Your task to perform on an android device: toggle javascript in the chrome app Image 0: 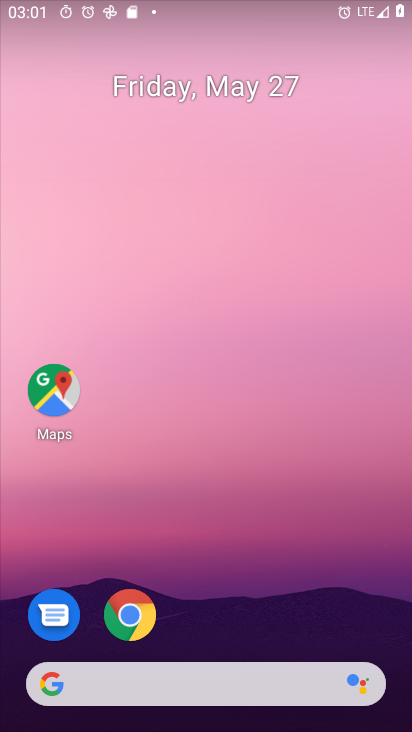
Step 0: drag from (336, 626) to (332, 237)
Your task to perform on an android device: toggle javascript in the chrome app Image 1: 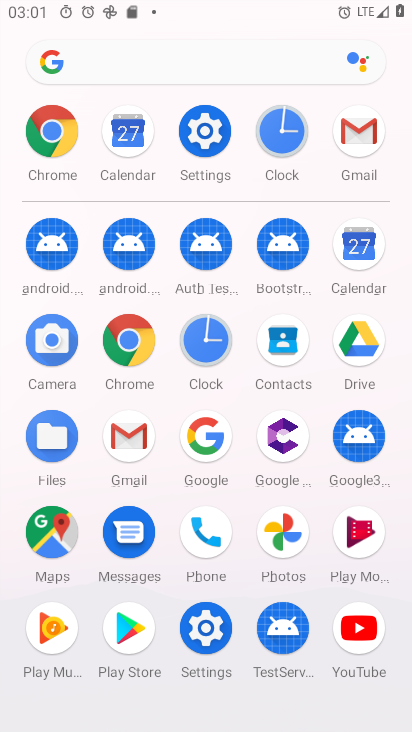
Step 1: click (137, 354)
Your task to perform on an android device: toggle javascript in the chrome app Image 2: 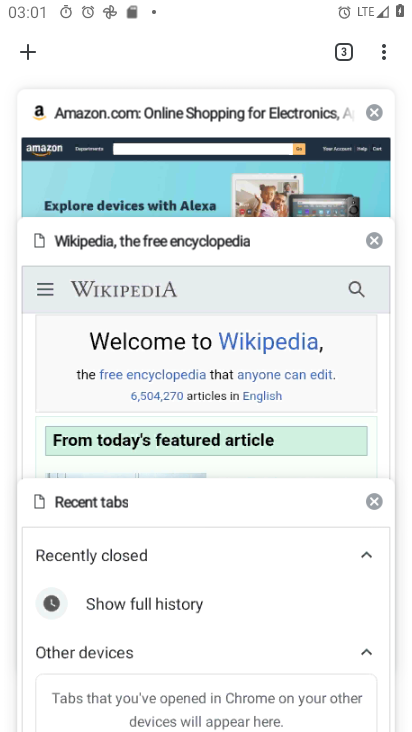
Step 2: click (385, 50)
Your task to perform on an android device: toggle javascript in the chrome app Image 3: 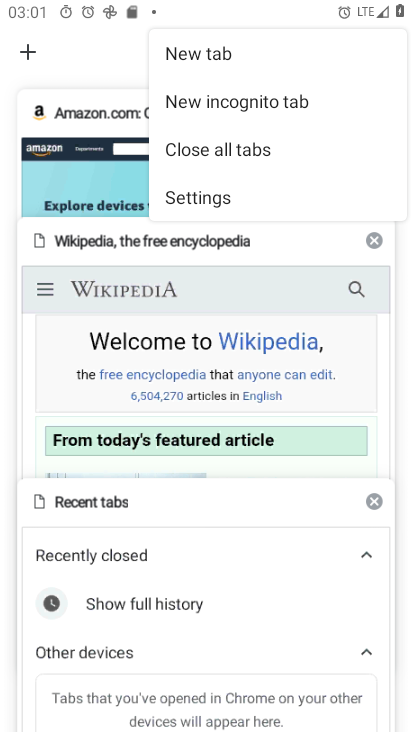
Step 3: click (232, 199)
Your task to perform on an android device: toggle javascript in the chrome app Image 4: 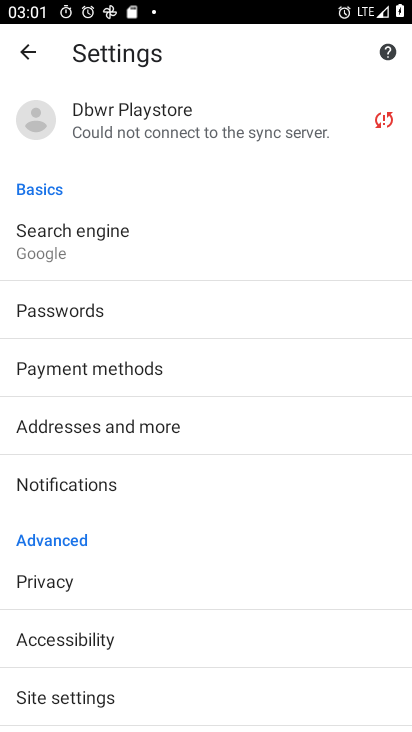
Step 4: drag from (292, 539) to (290, 456)
Your task to perform on an android device: toggle javascript in the chrome app Image 5: 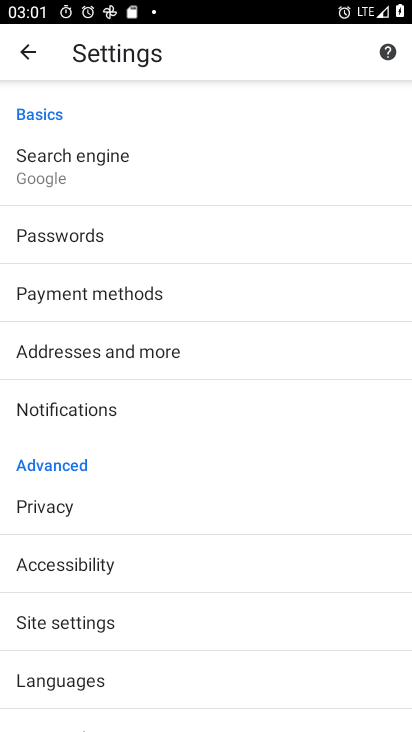
Step 5: drag from (319, 563) to (321, 420)
Your task to perform on an android device: toggle javascript in the chrome app Image 6: 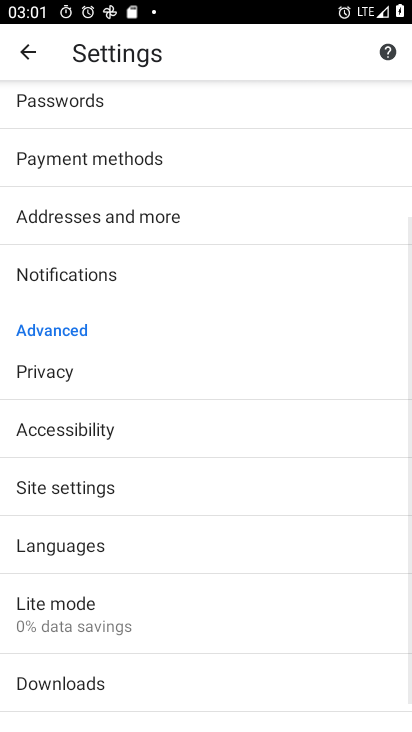
Step 6: drag from (310, 553) to (312, 455)
Your task to perform on an android device: toggle javascript in the chrome app Image 7: 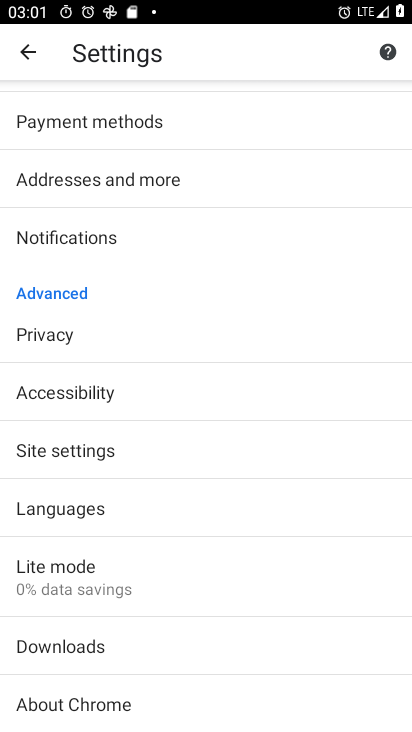
Step 7: drag from (306, 580) to (313, 437)
Your task to perform on an android device: toggle javascript in the chrome app Image 8: 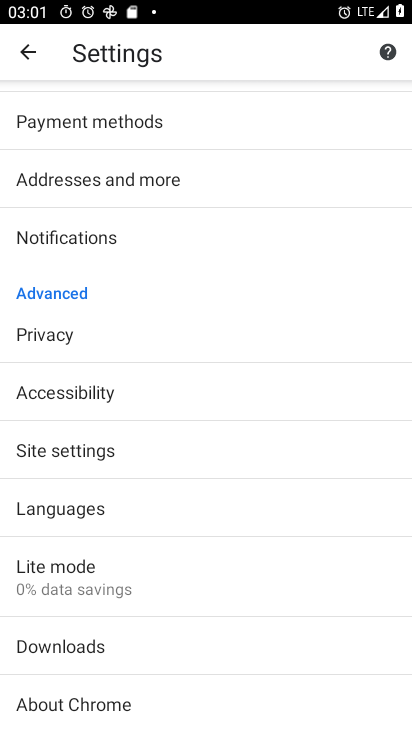
Step 8: drag from (294, 305) to (296, 406)
Your task to perform on an android device: toggle javascript in the chrome app Image 9: 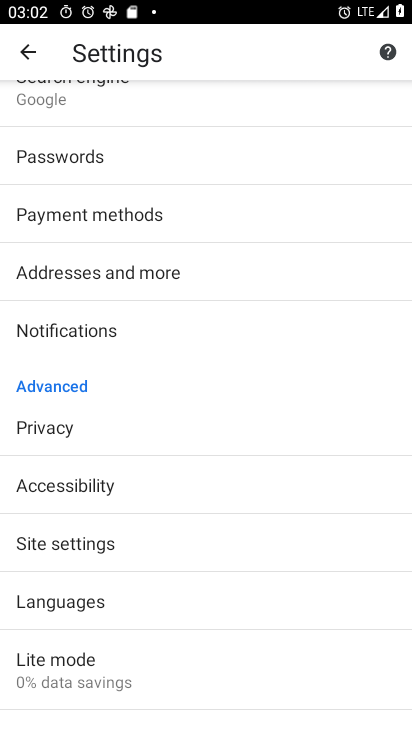
Step 9: drag from (300, 310) to (308, 429)
Your task to perform on an android device: toggle javascript in the chrome app Image 10: 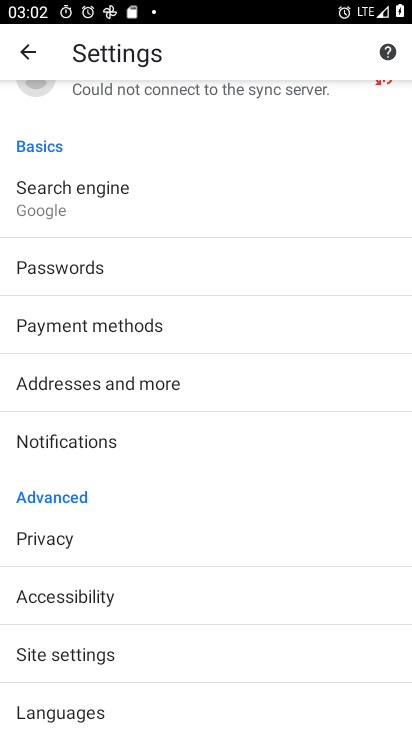
Step 10: drag from (314, 314) to (322, 420)
Your task to perform on an android device: toggle javascript in the chrome app Image 11: 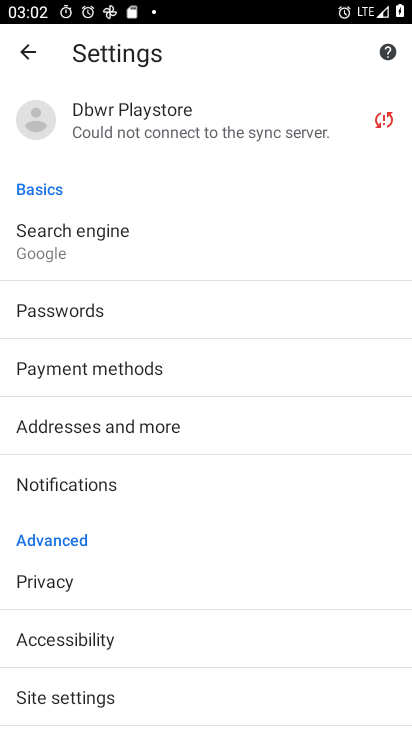
Step 11: drag from (320, 328) to (322, 483)
Your task to perform on an android device: toggle javascript in the chrome app Image 12: 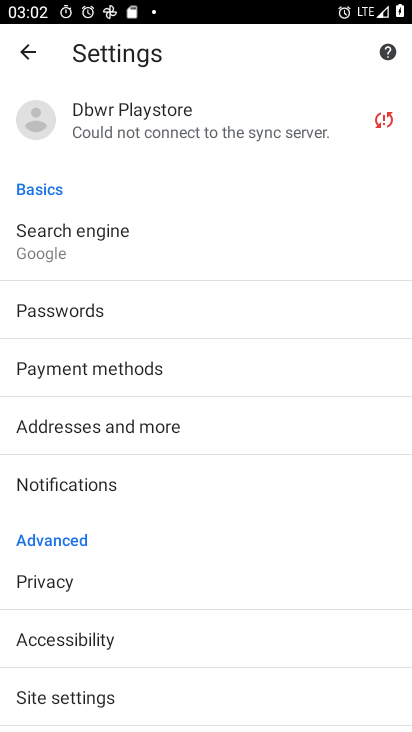
Step 12: drag from (325, 536) to (321, 440)
Your task to perform on an android device: toggle javascript in the chrome app Image 13: 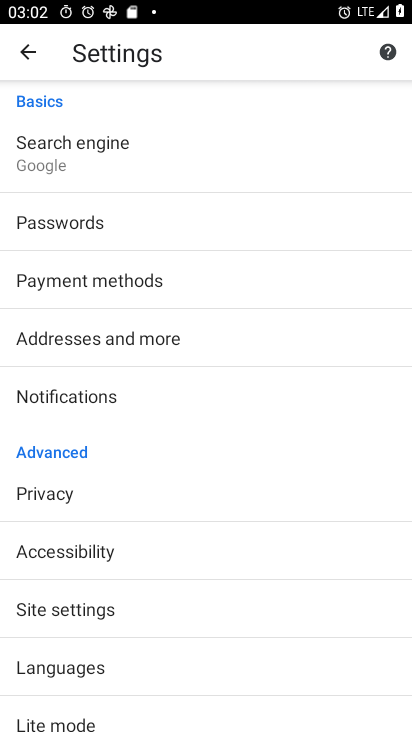
Step 13: drag from (296, 513) to (295, 350)
Your task to perform on an android device: toggle javascript in the chrome app Image 14: 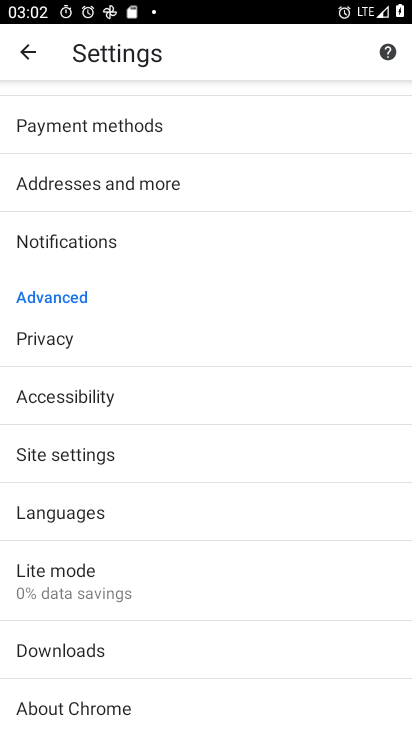
Step 14: click (265, 464)
Your task to perform on an android device: toggle javascript in the chrome app Image 15: 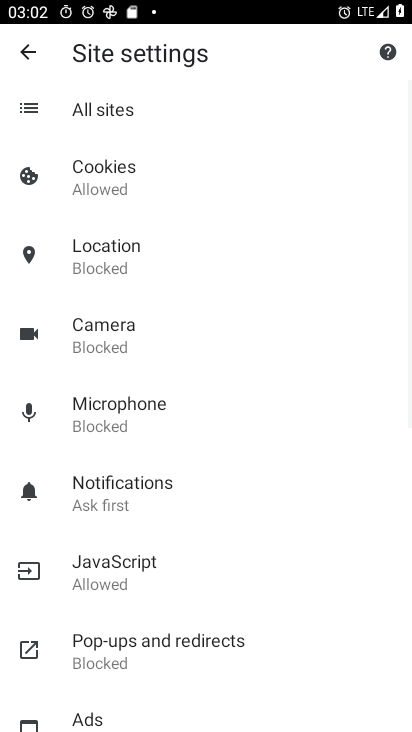
Step 15: drag from (265, 489) to (267, 403)
Your task to perform on an android device: toggle javascript in the chrome app Image 16: 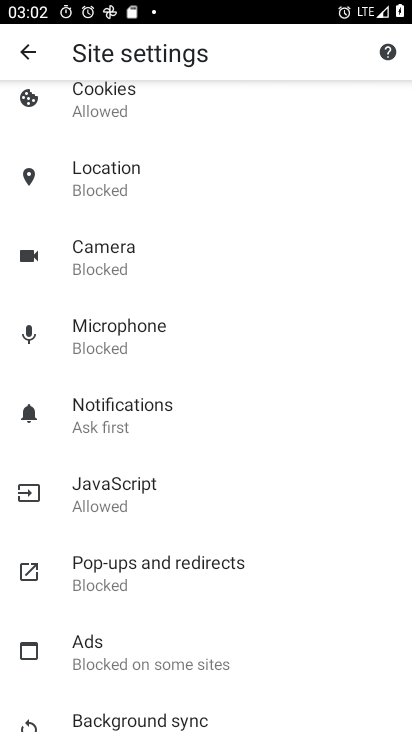
Step 16: drag from (265, 503) to (278, 413)
Your task to perform on an android device: toggle javascript in the chrome app Image 17: 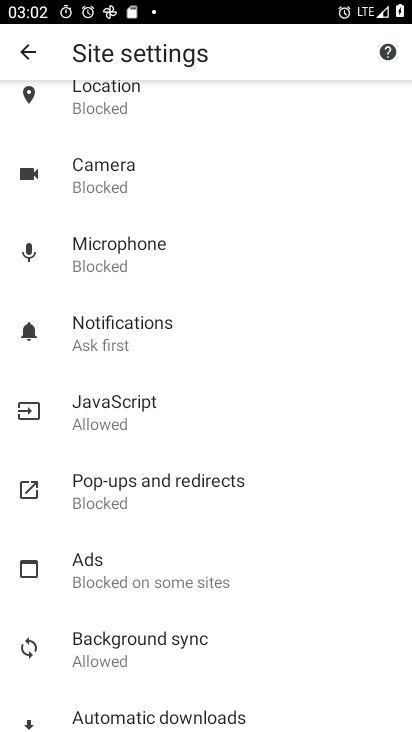
Step 17: drag from (277, 523) to (286, 432)
Your task to perform on an android device: toggle javascript in the chrome app Image 18: 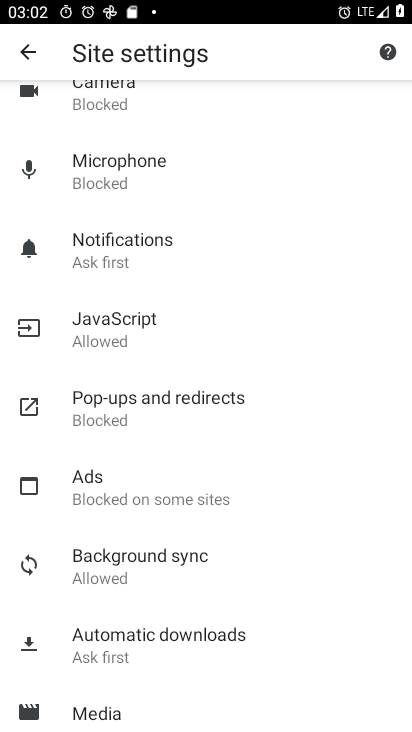
Step 18: click (213, 351)
Your task to perform on an android device: toggle javascript in the chrome app Image 19: 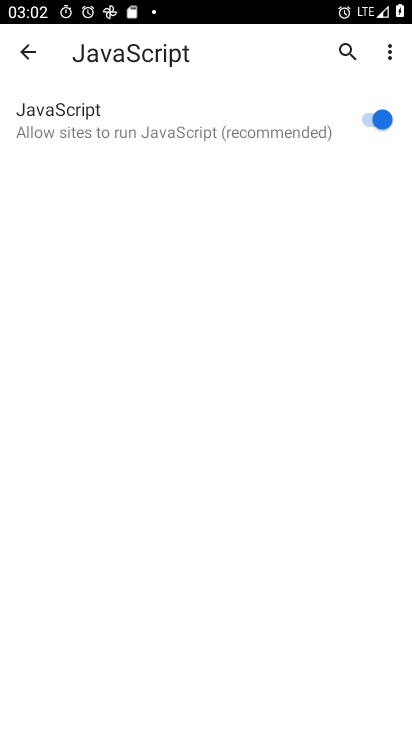
Step 19: click (381, 123)
Your task to perform on an android device: toggle javascript in the chrome app Image 20: 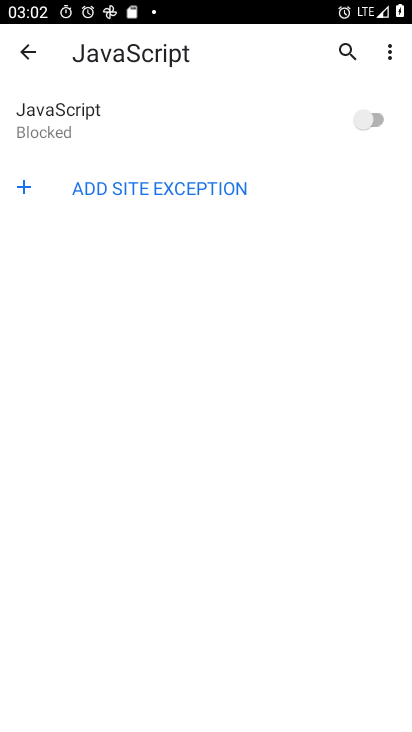
Step 20: task complete